Your task to perform on an android device: toggle priority inbox in the gmail app Image 0: 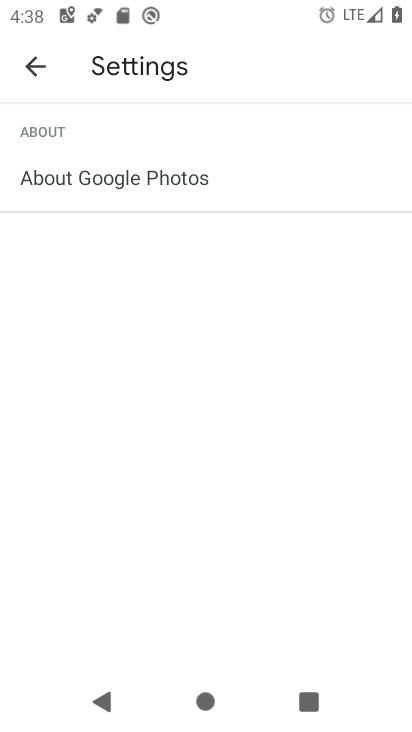
Step 0: press home button
Your task to perform on an android device: toggle priority inbox in the gmail app Image 1: 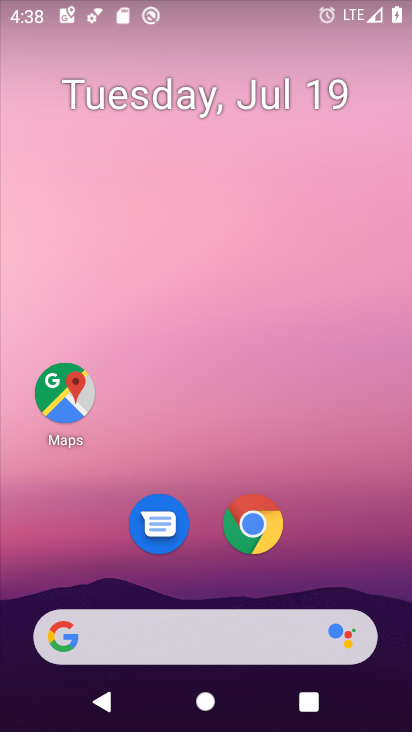
Step 1: drag from (308, 518) to (325, 85)
Your task to perform on an android device: toggle priority inbox in the gmail app Image 2: 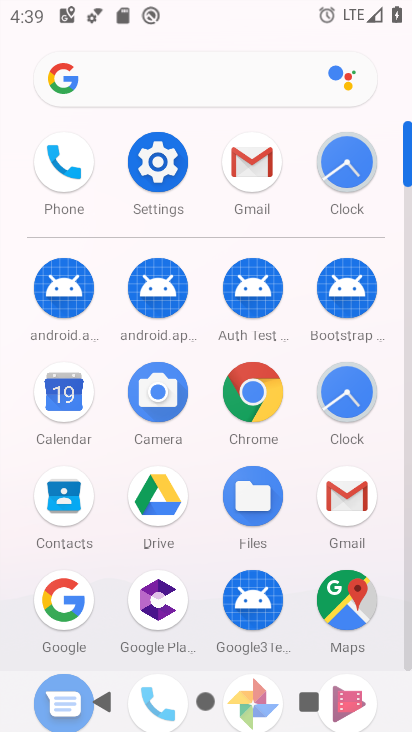
Step 2: click (247, 149)
Your task to perform on an android device: toggle priority inbox in the gmail app Image 3: 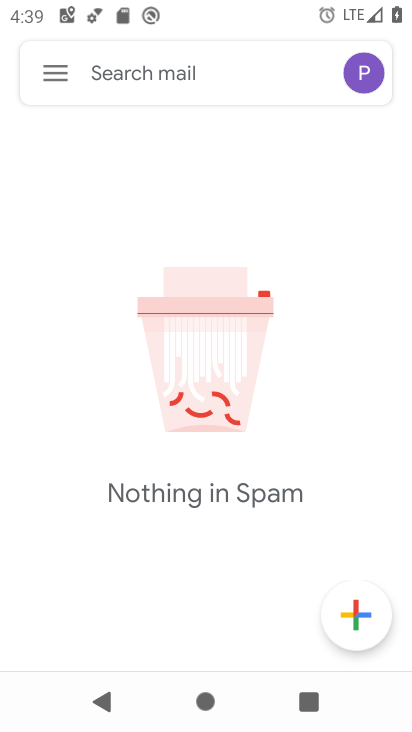
Step 3: click (62, 77)
Your task to perform on an android device: toggle priority inbox in the gmail app Image 4: 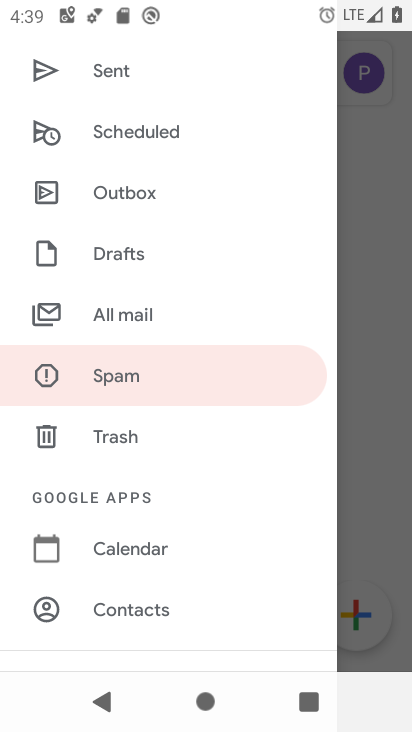
Step 4: drag from (147, 559) to (187, 117)
Your task to perform on an android device: toggle priority inbox in the gmail app Image 5: 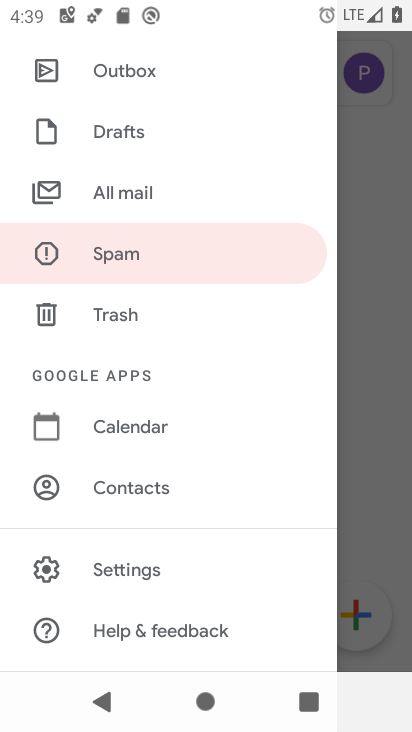
Step 5: click (145, 563)
Your task to perform on an android device: toggle priority inbox in the gmail app Image 6: 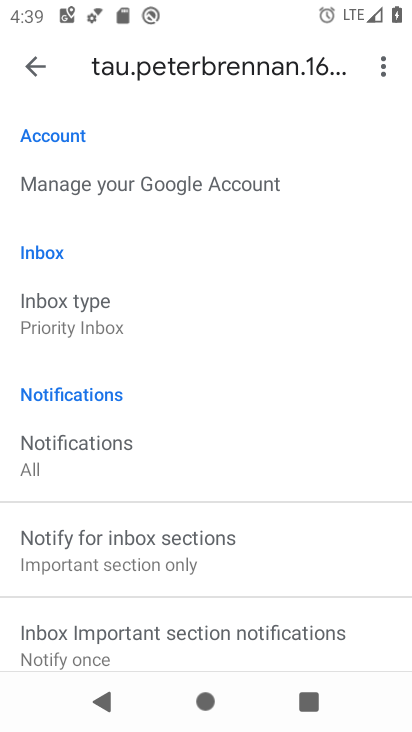
Step 6: click (108, 301)
Your task to perform on an android device: toggle priority inbox in the gmail app Image 7: 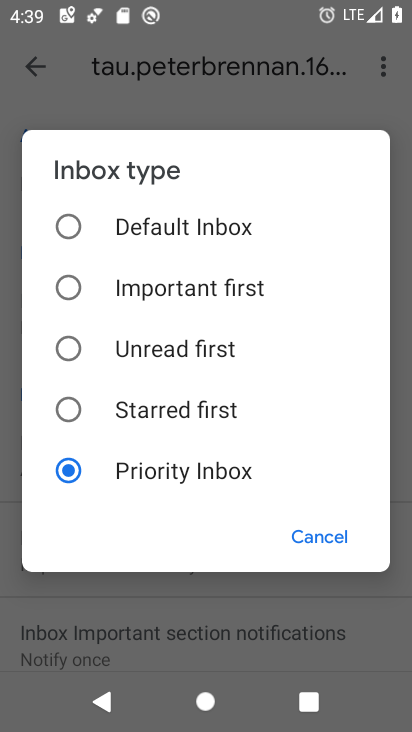
Step 7: click (73, 225)
Your task to perform on an android device: toggle priority inbox in the gmail app Image 8: 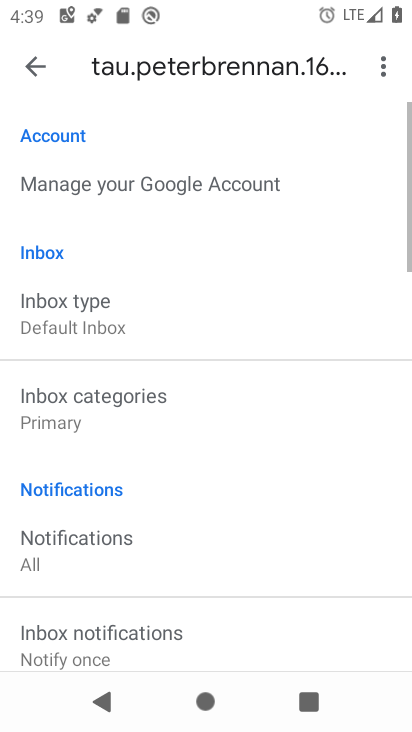
Step 8: task complete